Your task to perform on an android device: Check the weather Image 0: 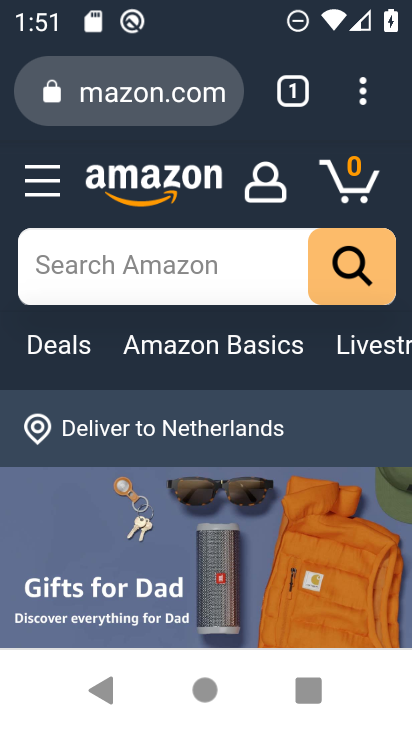
Step 0: press home button
Your task to perform on an android device: Check the weather Image 1: 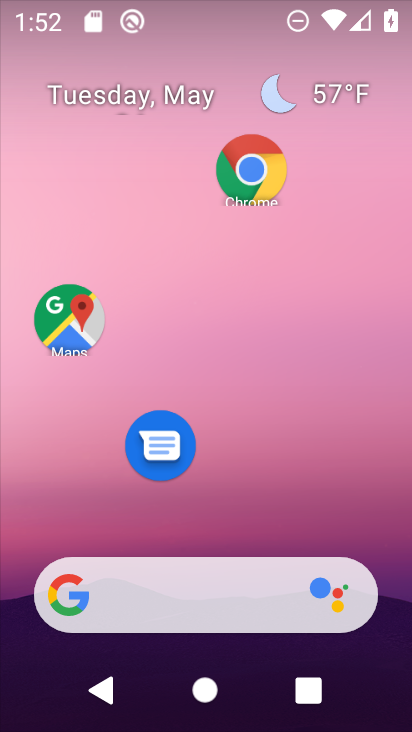
Step 1: click (271, 93)
Your task to perform on an android device: Check the weather Image 2: 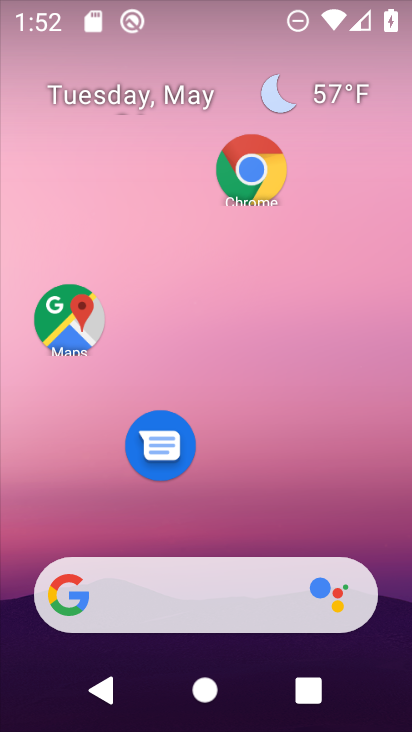
Step 2: click (272, 93)
Your task to perform on an android device: Check the weather Image 3: 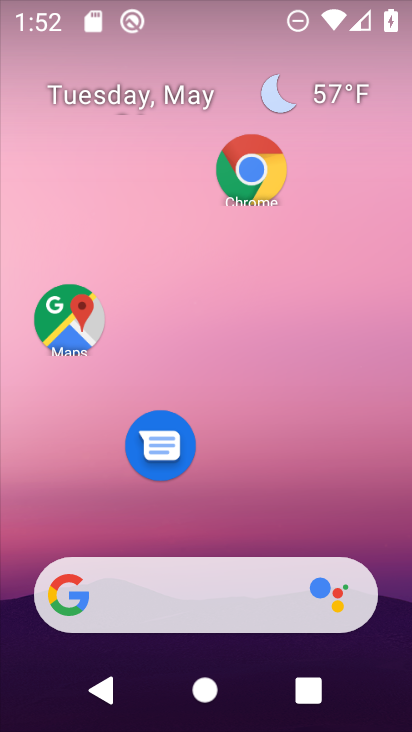
Step 3: click (271, 92)
Your task to perform on an android device: Check the weather Image 4: 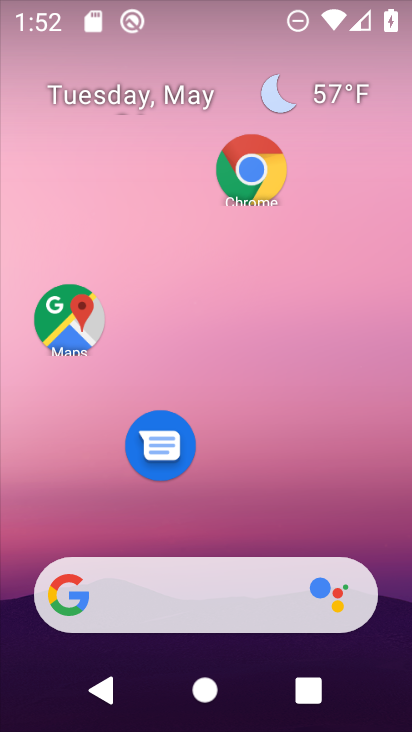
Step 4: click (274, 91)
Your task to perform on an android device: Check the weather Image 5: 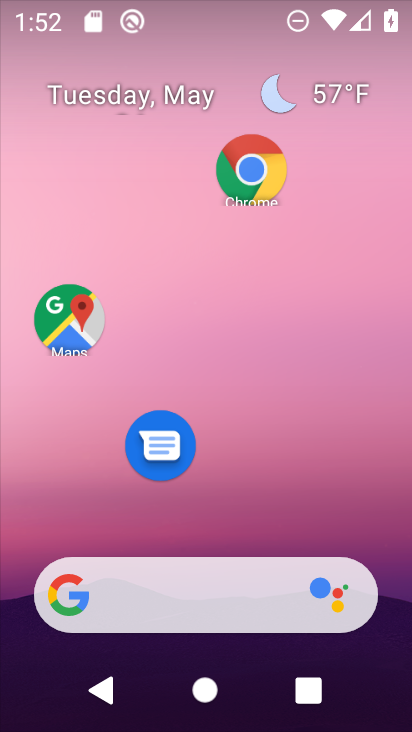
Step 5: click (279, 94)
Your task to perform on an android device: Check the weather Image 6: 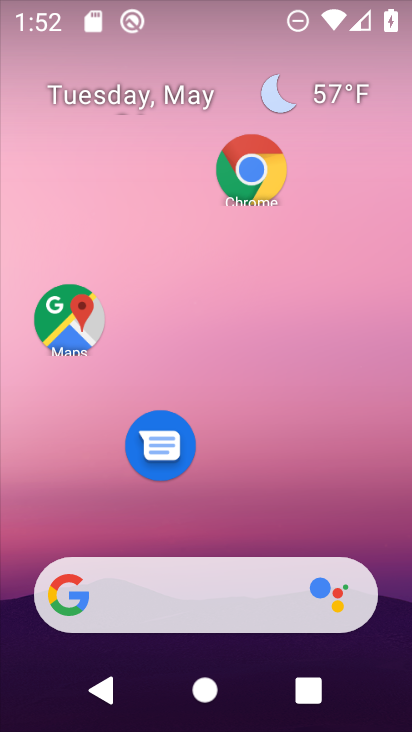
Step 6: click (269, 97)
Your task to perform on an android device: Check the weather Image 7: 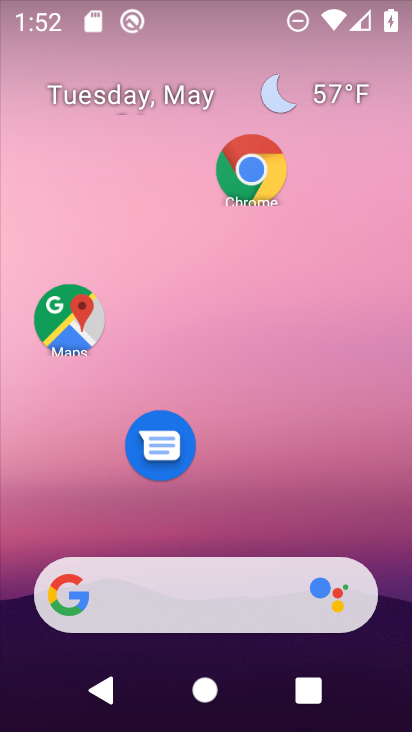
Step 7: drag from (238, 727) to (225, 40)
Your task to perform on an android device: Check the weather Image 8: 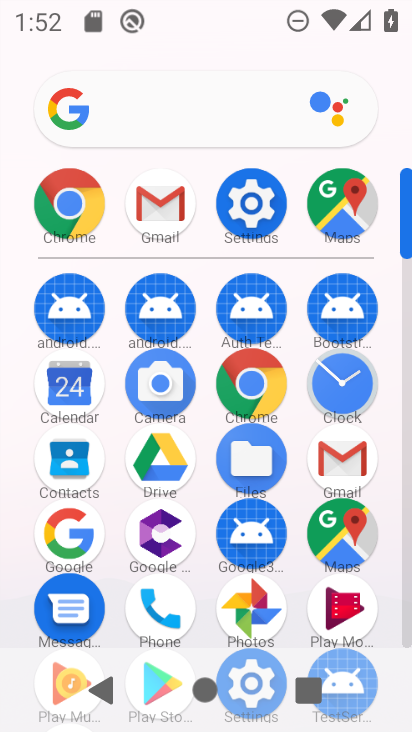
Step 8: click (62, 533)
Your task to perform on an android device: Check the weather Image 9: 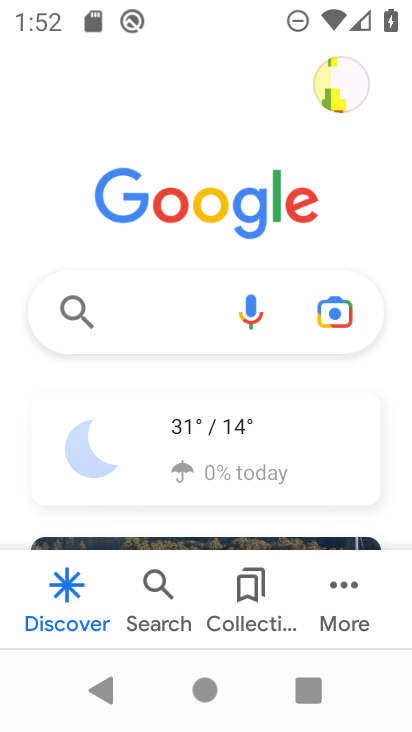
Step 9: click (196, 455)
Your task to perform on an android device: Check the weather Image 10: 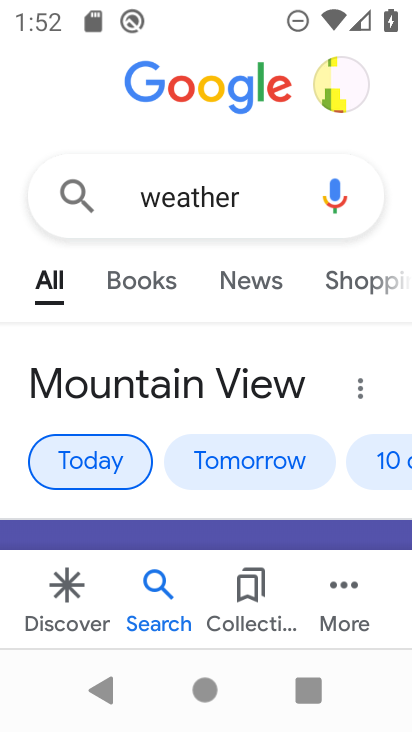
Step 10: drag from (186, 456) to (192, 174)
Your task to perform on an android device: Check the weather Image 11: 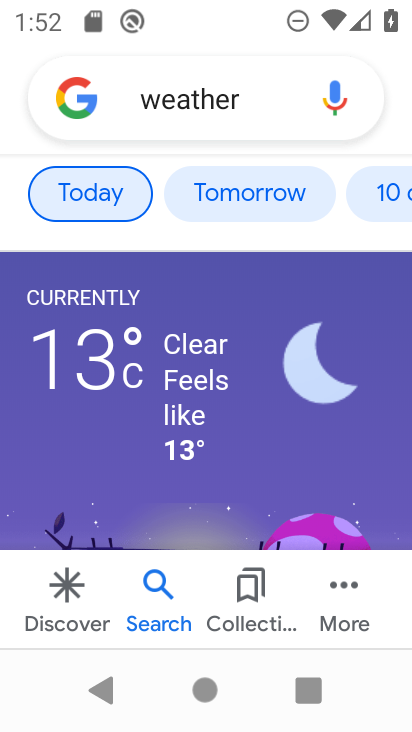
Step 11: drag from (211, 595) to (214, 251)
Your task to perform on an android device: Check the weather Image 12: 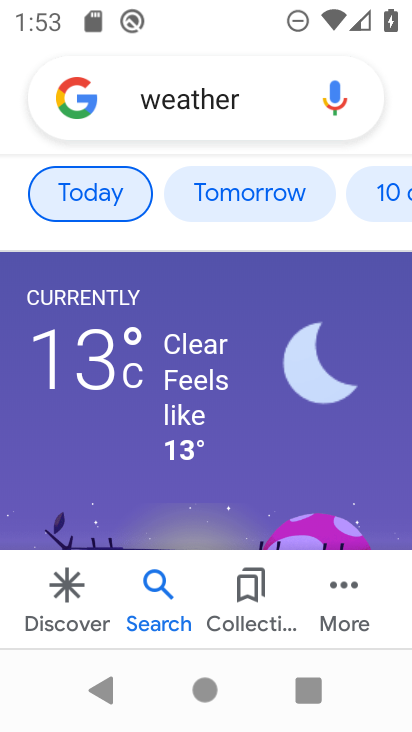
Step 12: drag from (205, 597) to (207, 187)
Your task to perform on an android device: Check the weather Image 13: 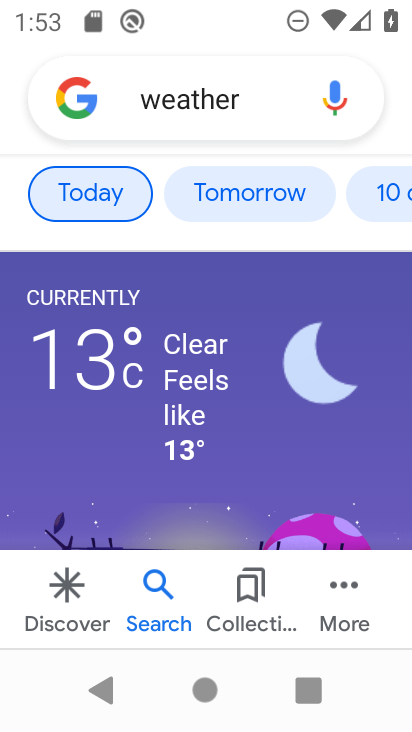
Step 13: click (108, 191)
Your task to perform on an android device: Check the weather Image 14: 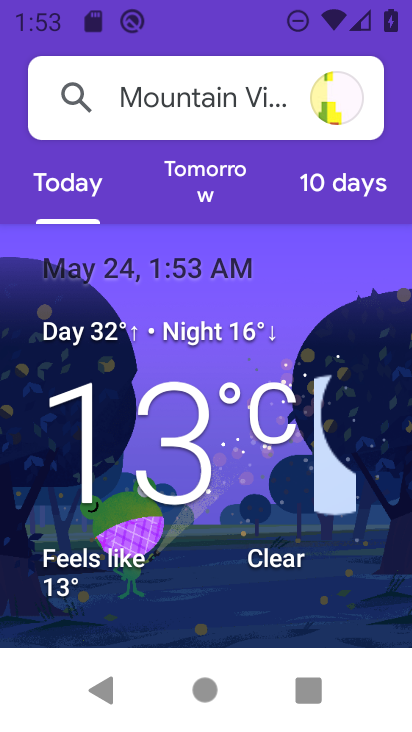
Step 14: task complete